Your task to perform on an android device: Go to Wikipedia Image 0: 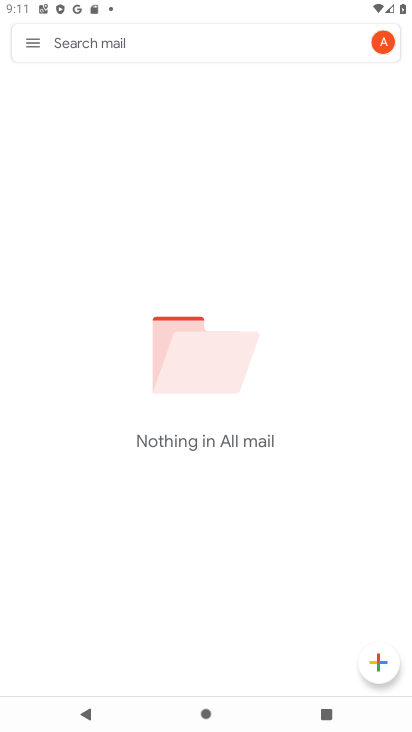
Step 0: press home button
Your task to perform on an android device: Go to Wikipedia Image 1: 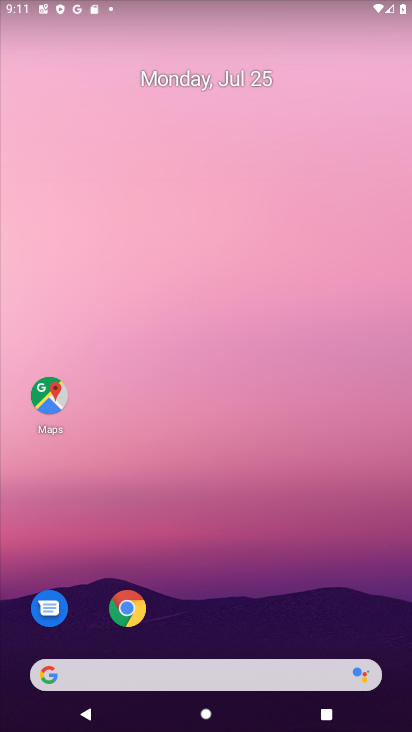
Step 1: click (131, 597)
Your task to perform on an android device: Go to Wikipedia Image 2: 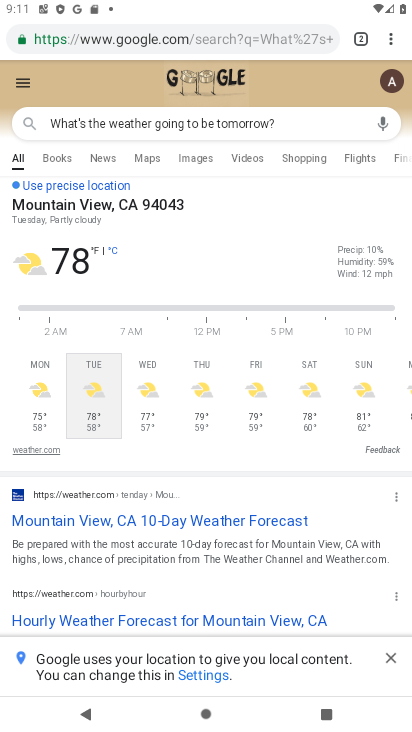
Step 2: click (386, 39)
Your task to perform on an android device: Go to Wikipedia Image 3: 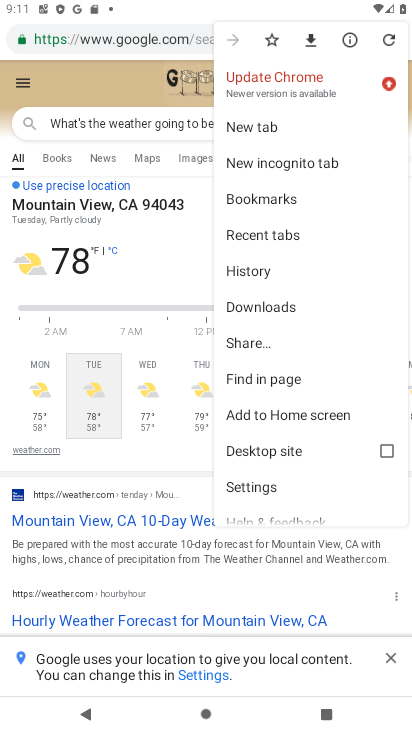
Step 3: click (239, 121)
Your task to perform on an android device: Go to Wikipedia Image 4: 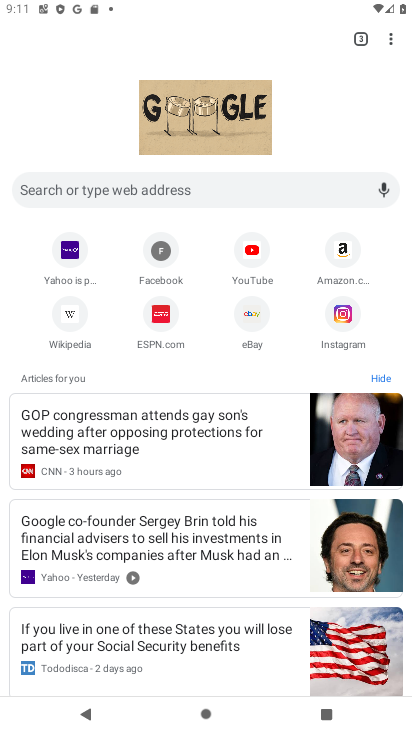
Step 4: click (72, 318)
Your task to perform on an android device: Go to Wikipedia Image 5: 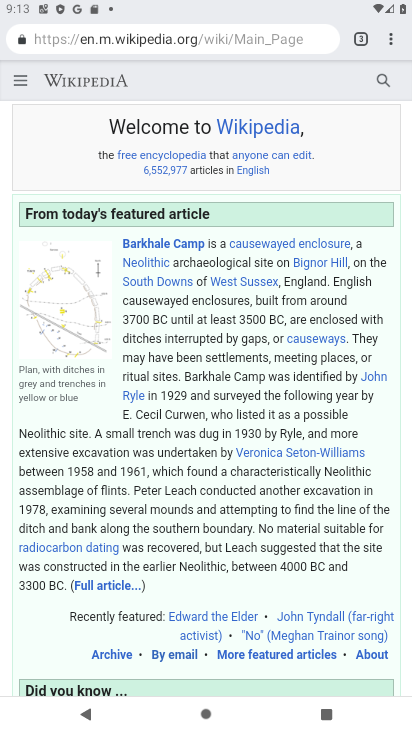
Step 5: task complete